Your task to perform on an android device: toggle priority inbox in the gmail app Image 0: 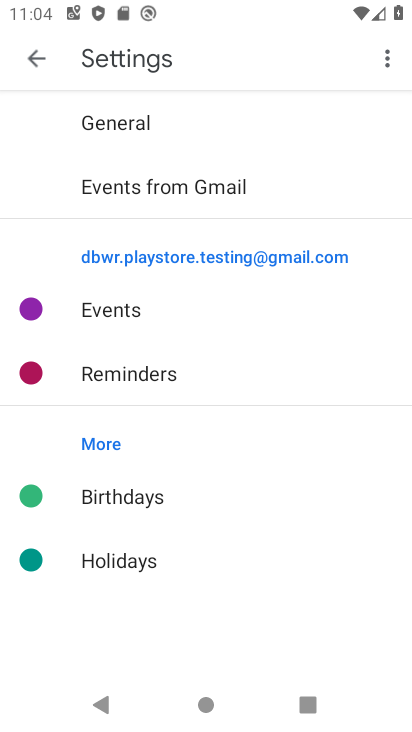
Step 0: press home button
Your task to perform on an android device: toggle priority inbox in the gmail app Image 1: 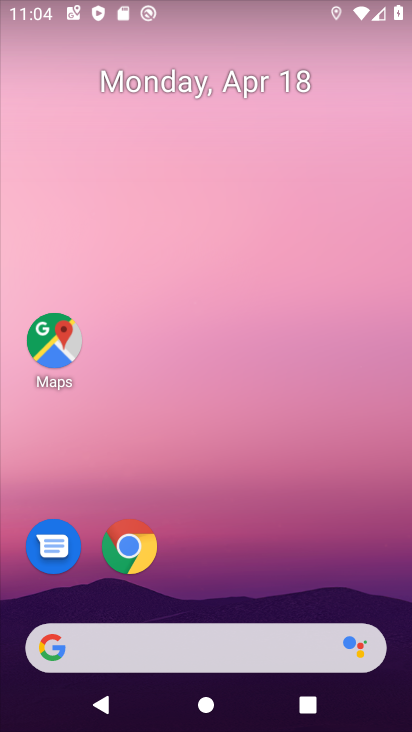
Step 1: click (223, 629)
Your task to perform on an android device: toggle priority inbox in the gmail app Image 2: 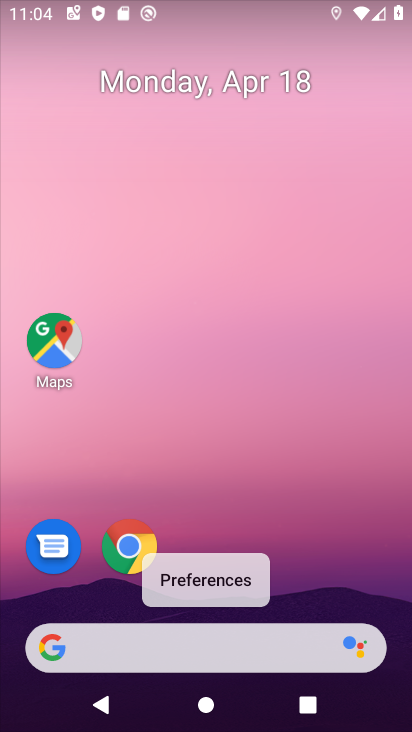
Step 2: drag from (236, 595) to (251, 249)
Your task to perform on an android device: toggle priority inbox in the gmail app Image 3: 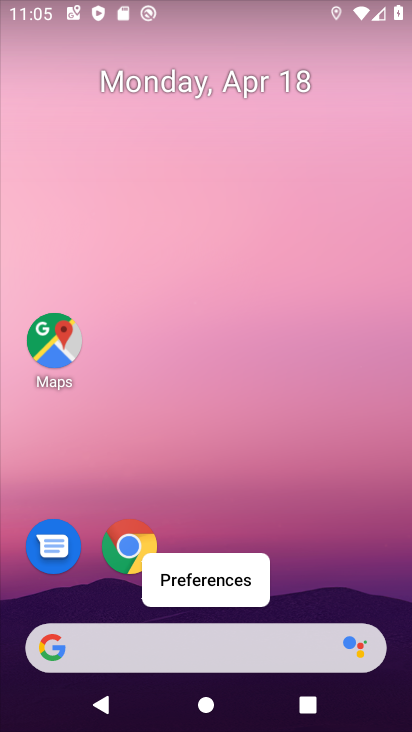
Step 3: click (341, 587)
Your task to perform on an android device: toggle priority inbox in the gmail app Image 4: 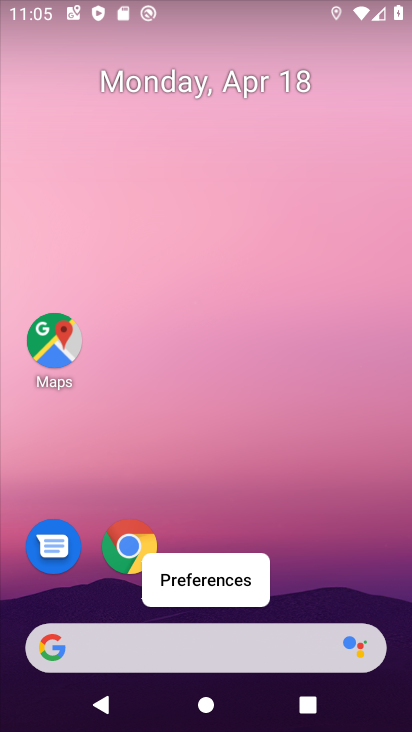
Step 4: drag from (341, 587) to (315, 204)
Your task to perform on an android device: toggle priority inbox in the gmail app Image 5: 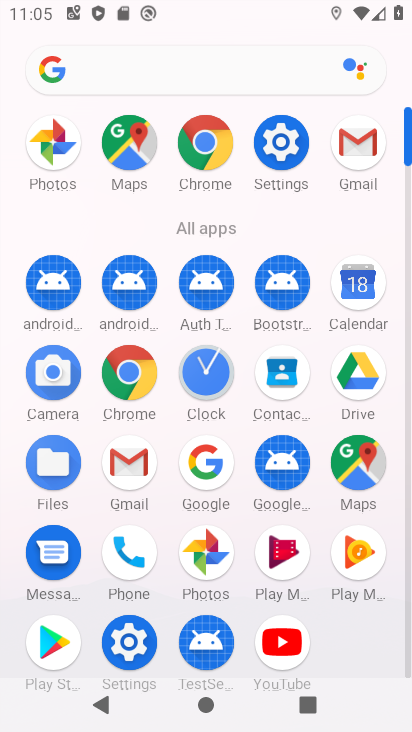
Step 5: click (347, 165)
Your task to perform on an android device: toggle priority inbox in the gmail app Image 6: 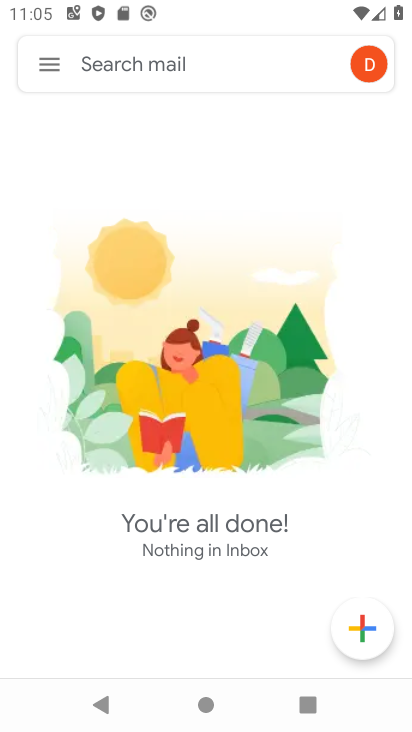
Step 6: click (58, 70)
Your task to perform on an android device: toggle priority inbox in the gmail app Image 7: 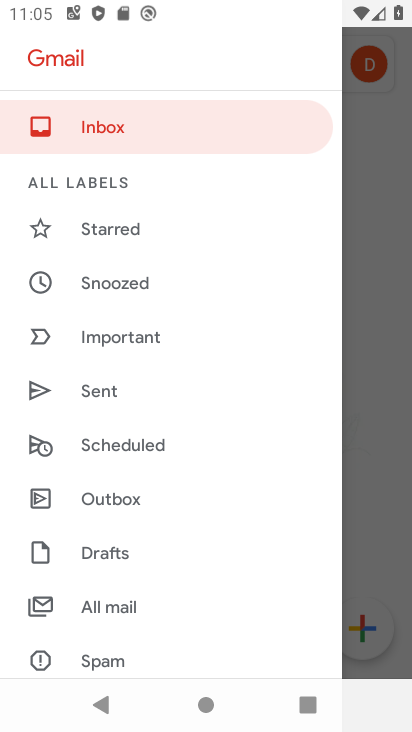
Step 7: drag from (166, 227) to (159, 536)
Your task to perform on an android device: toggle priority inbox in the gmail app Image 8: 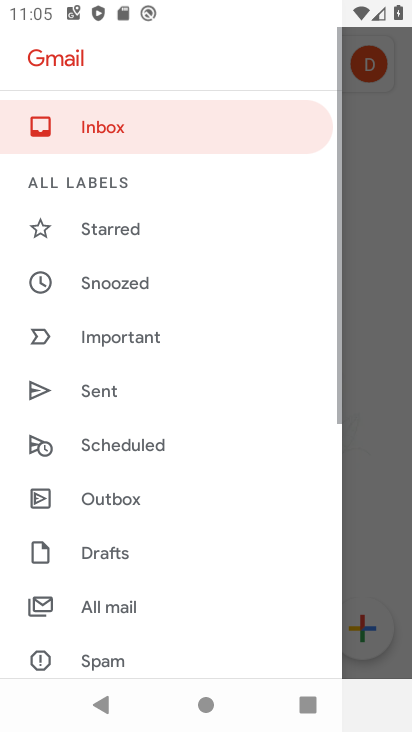
Step 8: drag from (156, 631) to (153, 242)
Your task to perform on an android device: toggle priority inbox in the gmail app Image 9: 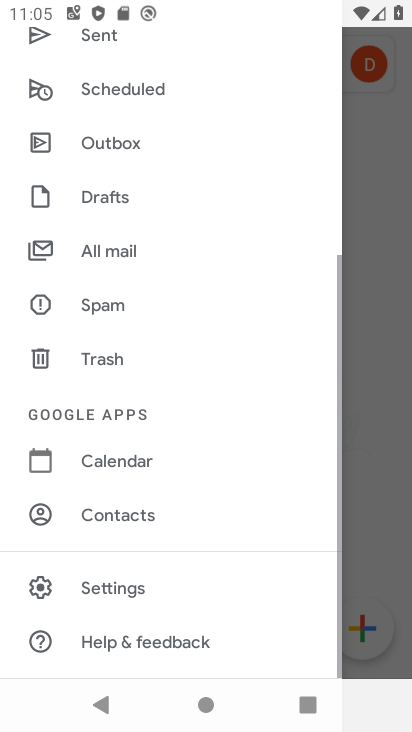
Step 9: click (156, 185)
Your task to perform on an android device: toggle priority inbox in the gmail app Image 10: 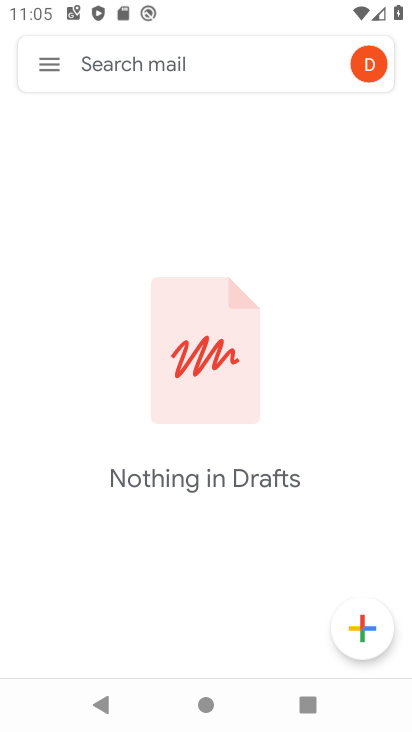
Step 10: click (34, 54)
Your task to perform on an android device: toggle priority inbox in the gmail app Image 11: 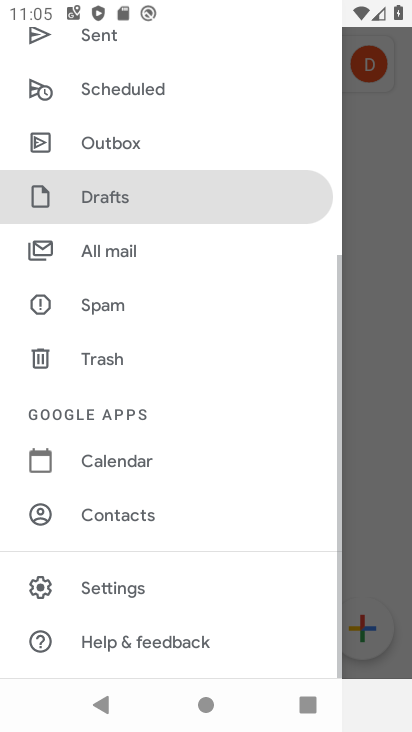
Step 11: click (103, 576)
Your task to perform on an android device: toggle priority inbox in the gmail app Image 12: 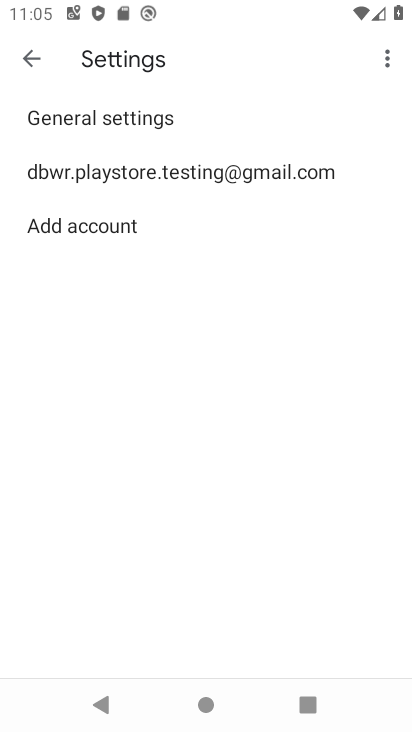
Step 12: click (195, 185)
Your task to perform on an android device: toggle priority inbox in the gmail app Image 13: 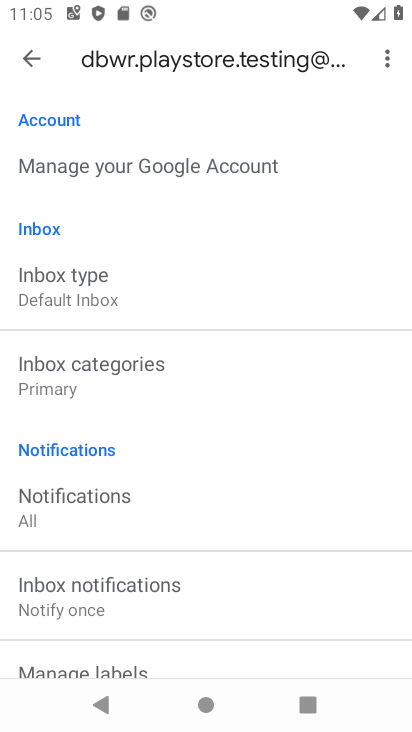
Step 13: click (204, 304)
Your task to perform on an android device: toggle priority inbox in the gmail app Image 14: 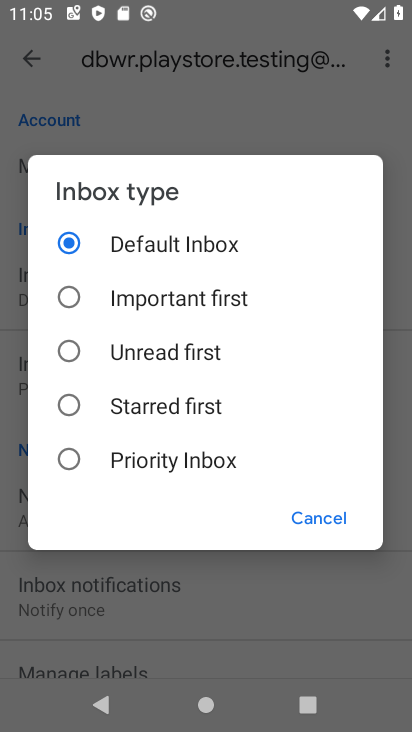
Step 14: click (170, 458)
Your task to perform on an android device: toggle priority inbox in the gmail app Image 15: 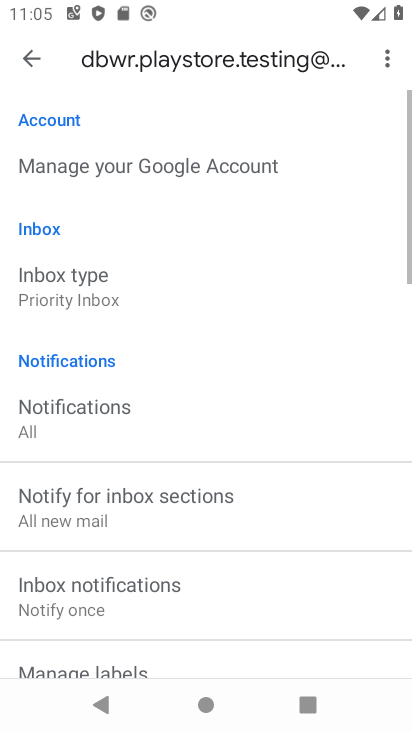
Step 15: task complete